Your task to perform on an android device: Search for "acer nitro" on costco, select the first entry, add it to the cart, then select checkout. Image 0: 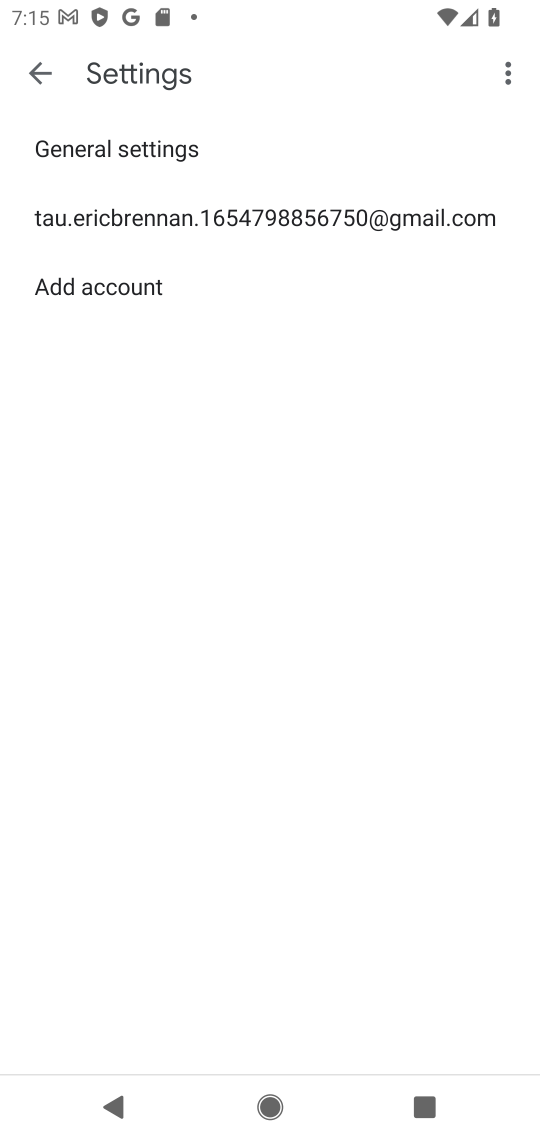
Step 0: press home button
Your task to perform on an android device: Search for "acer nitro" on costco, select the first entry, add it to the cart, then select checkout. Image 1: 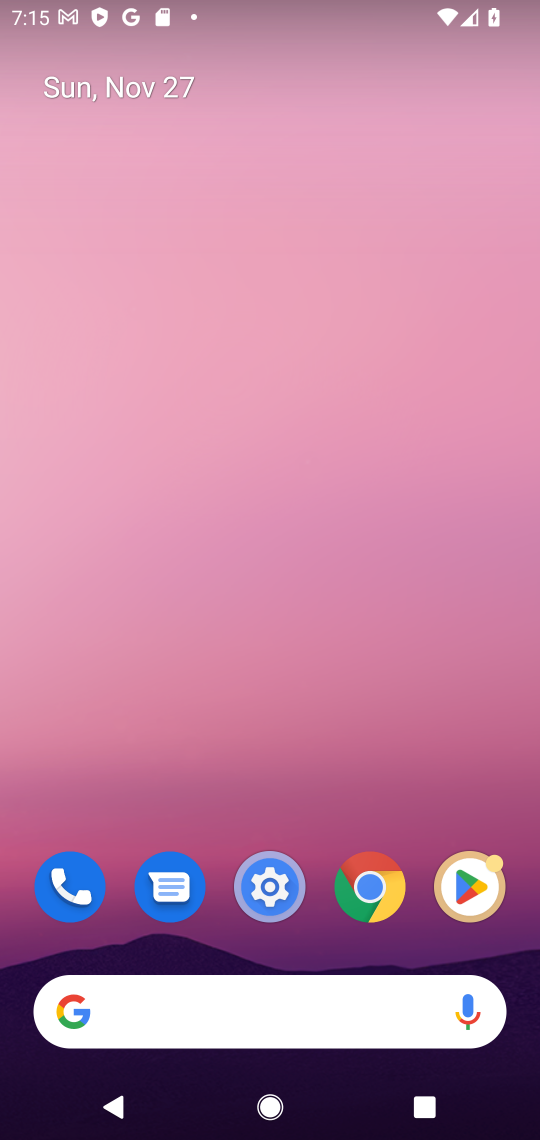
Step 1: click (248, 992)
Your task to perform on an android device: Search for "acer nitro" on costco, select the first entry, add it to the cart, then select checkout. Image 2: 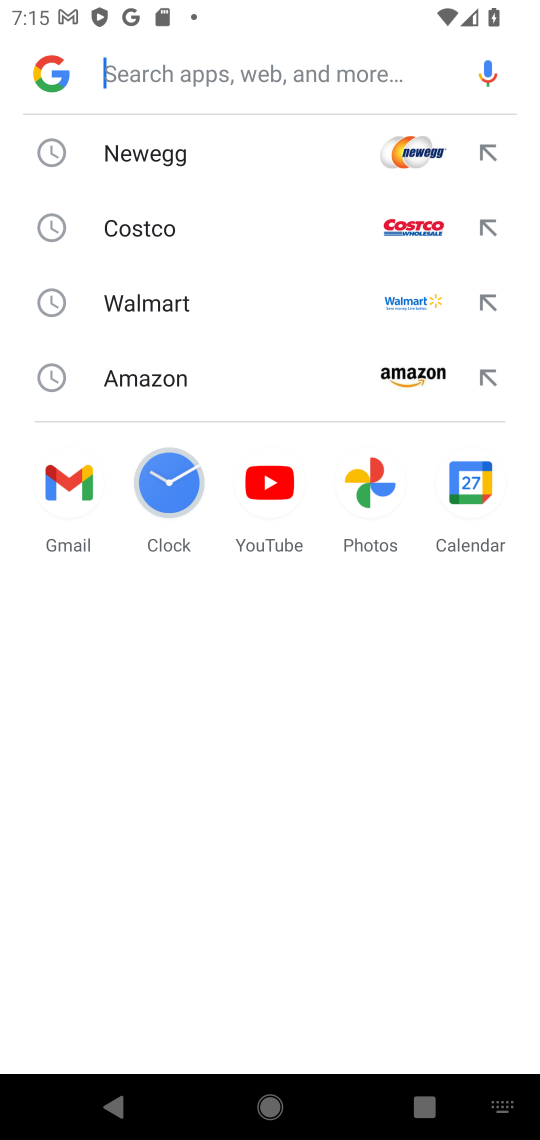
Step 2: click (324, 214)
Your task to perform on an android device: Search for "acer nitro" on costco, select the first entry, add it to the cart, then select checkout. Image 3: 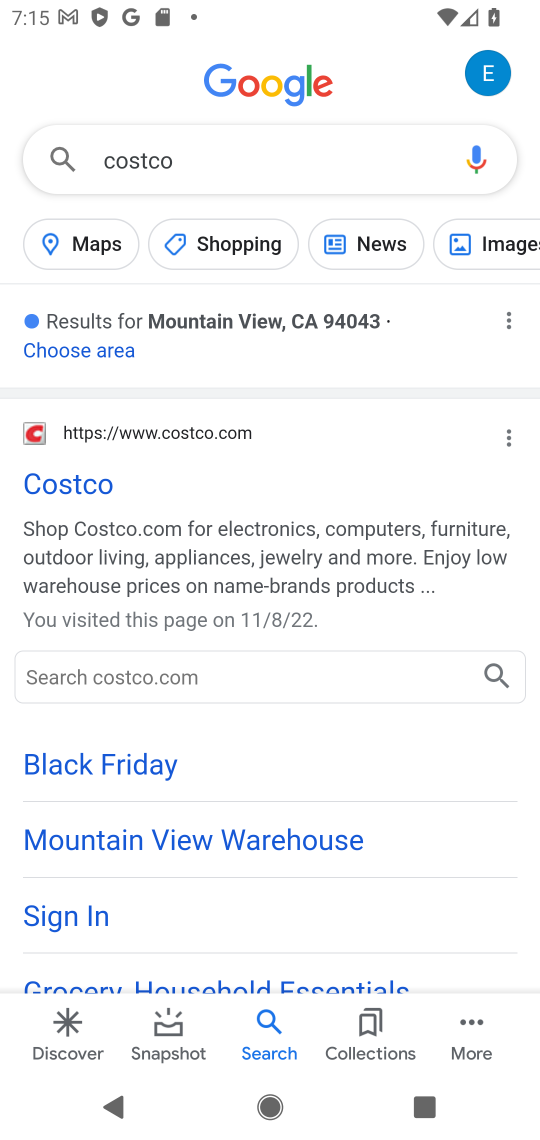
Step 3: click (63, 488)
Your task to perform on an android device: Search for "acer nitro" on costco, select the first entry, add it to the cart, then select checkout. Image 4: 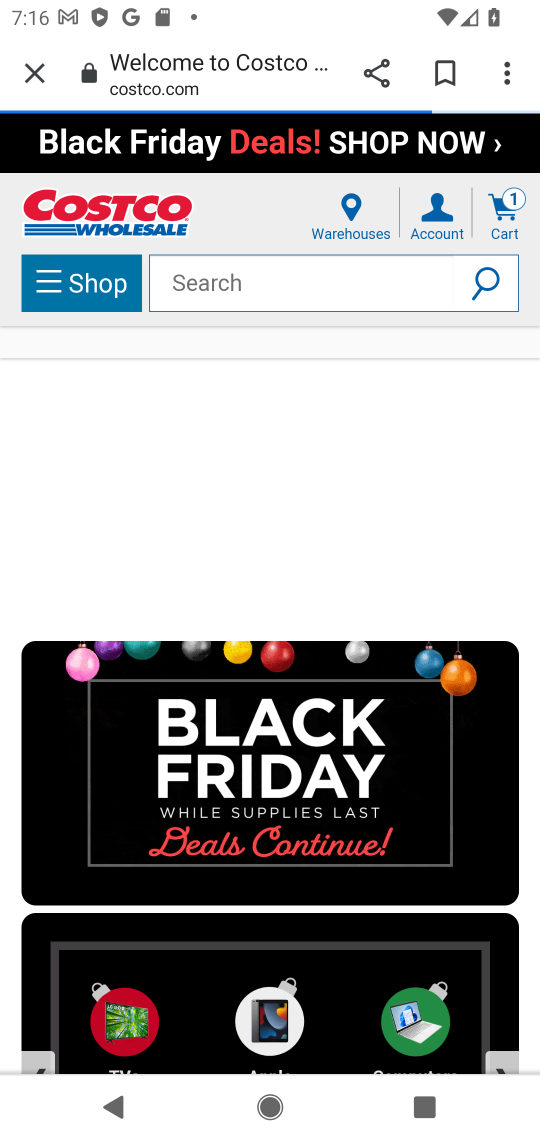
Step 4: click (326, 287)
Your task to perform on an android device: Search for "acer nitro" on costco, select the first entry, add it to the cart, then select checkout. Image 5: 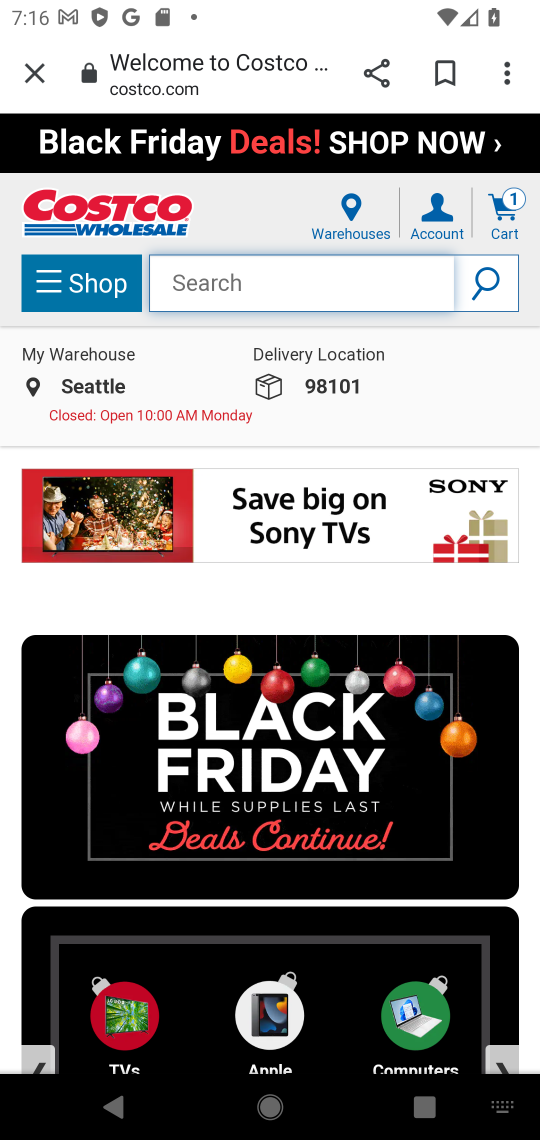
Step 5: type "acer nitro"
Your task to perform on an android device: Search for "acer nitro" on costco, select the first entry, add it to the cart, then select checkout. Image 6: 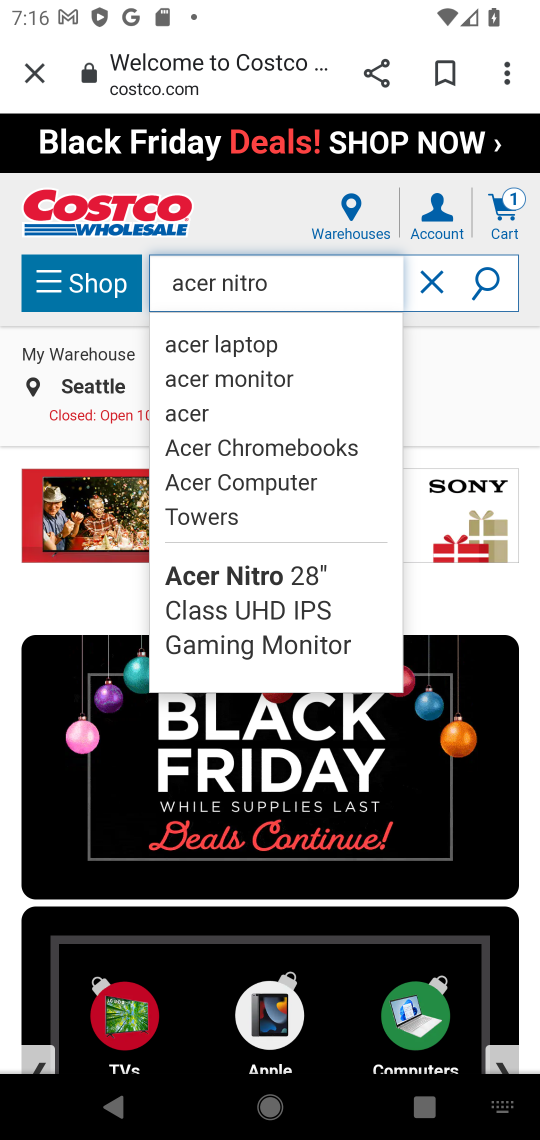
Step 6: click (485, 283)
Your task to perform on an android device: Search for "acer nitro" on costco, select the first entry, add it to the cart, then select checkout. Image 7: 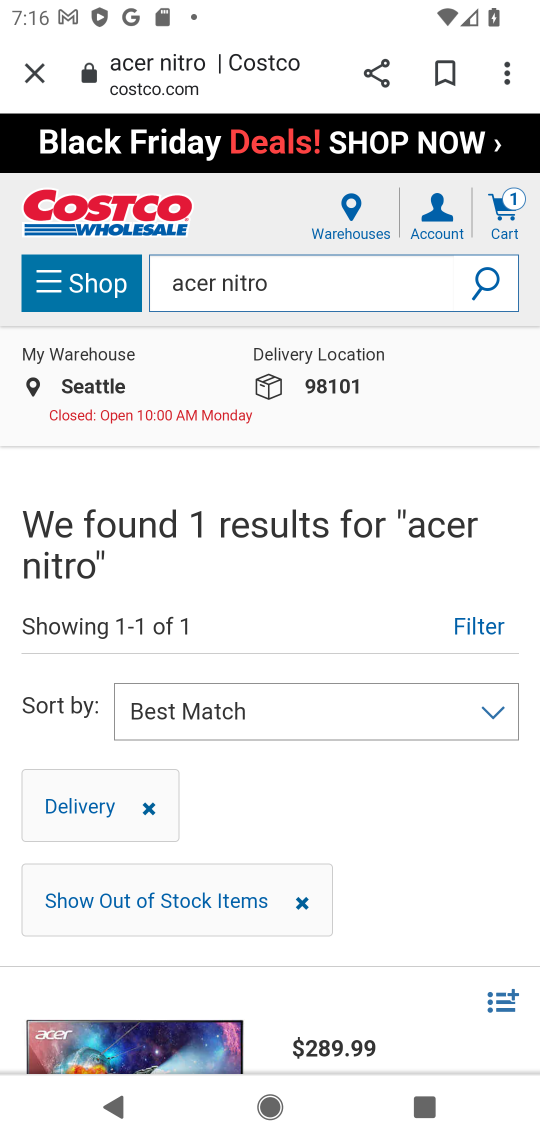
Step 7: drag from (357, 809) to (301, 434)
Your task to perform on an android device: Search for "acer nitro" on costco, select the first entry, add it to the cart, then select checkout. Image 8: 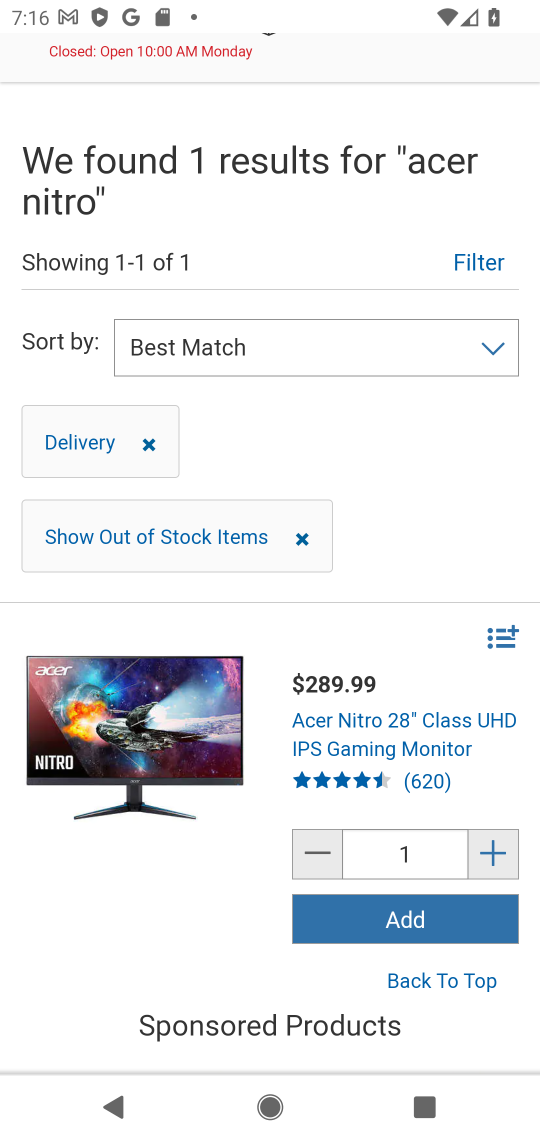
Step 8: click (453, 914)
Your task to perform on an android device: Search for "acer nitro" on costco, select the first entry, add it to the cart, then select checkout. Image 9: 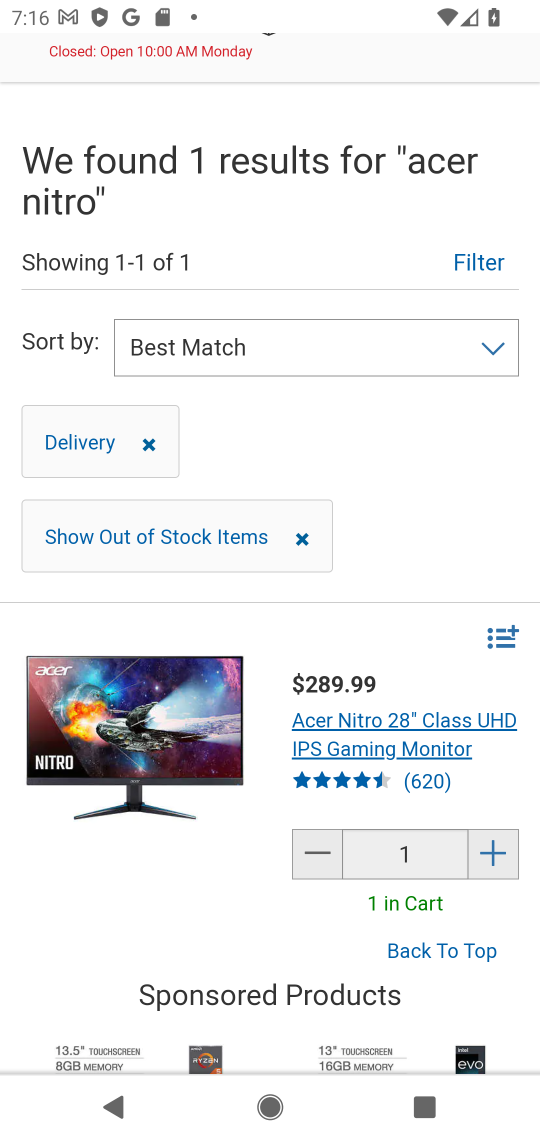
Step 9: task complete